Your task to perform on an android device: choose inbox layout in the gmail app Image 0: 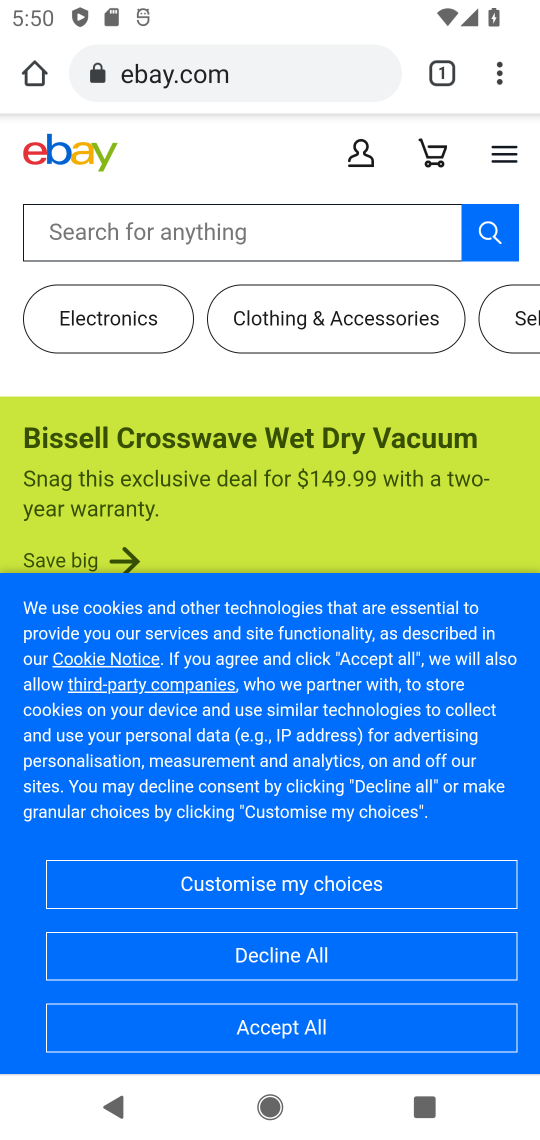
Step 0: press home button
Your task to perform on an android device: choose inbox layout in the gmail app Image 1: 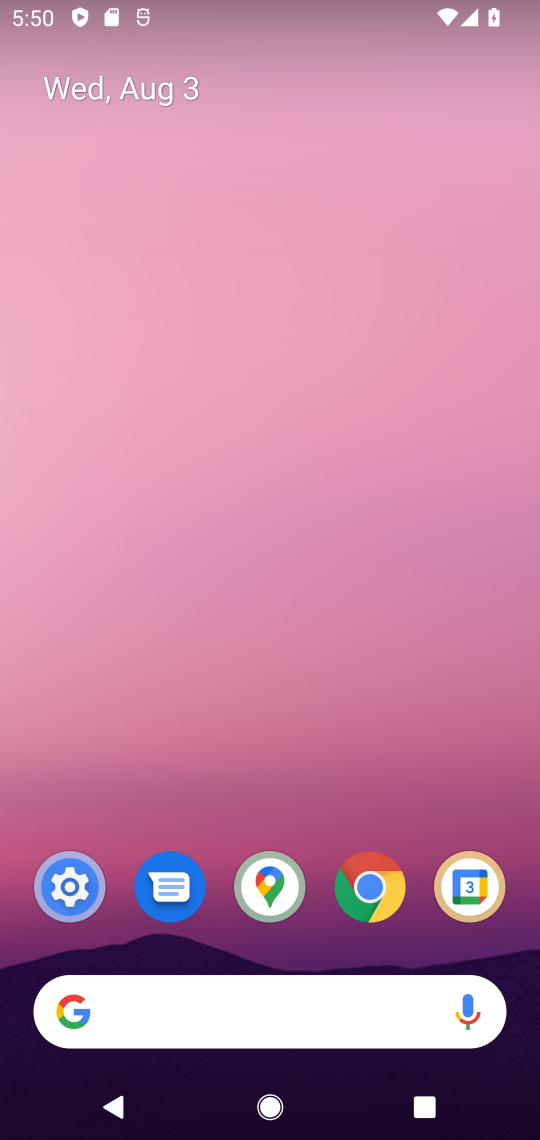
Step 1: drag from (264, 959) to (379, 71)
Your task to perform on an android device: choose inbox layout in the gmail app Image 2: 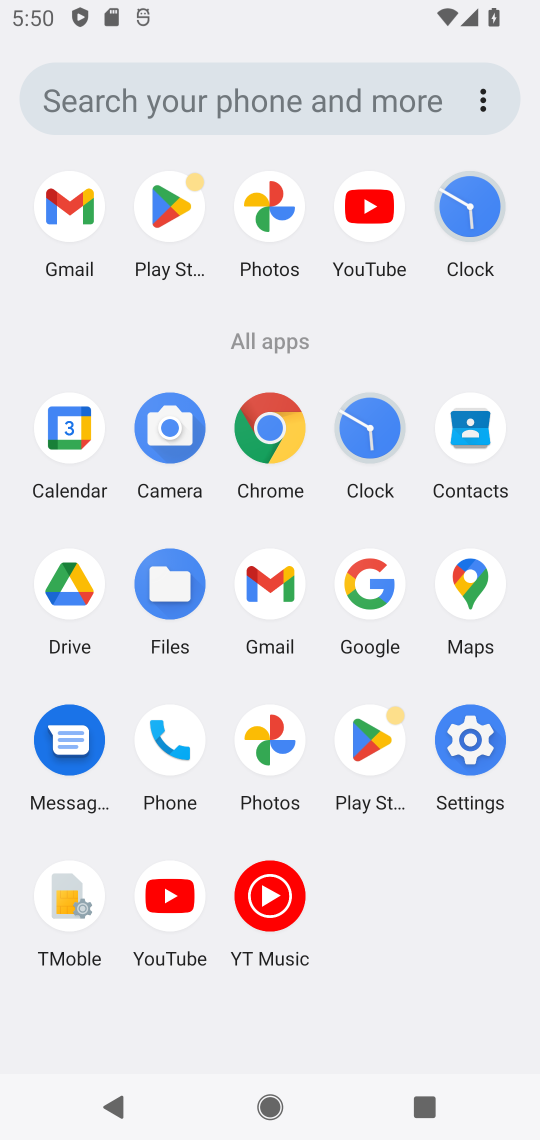
Step 2: click (253, 560)
Your task to perform on an android device: choose inbox layout in the gmail app Image 3: 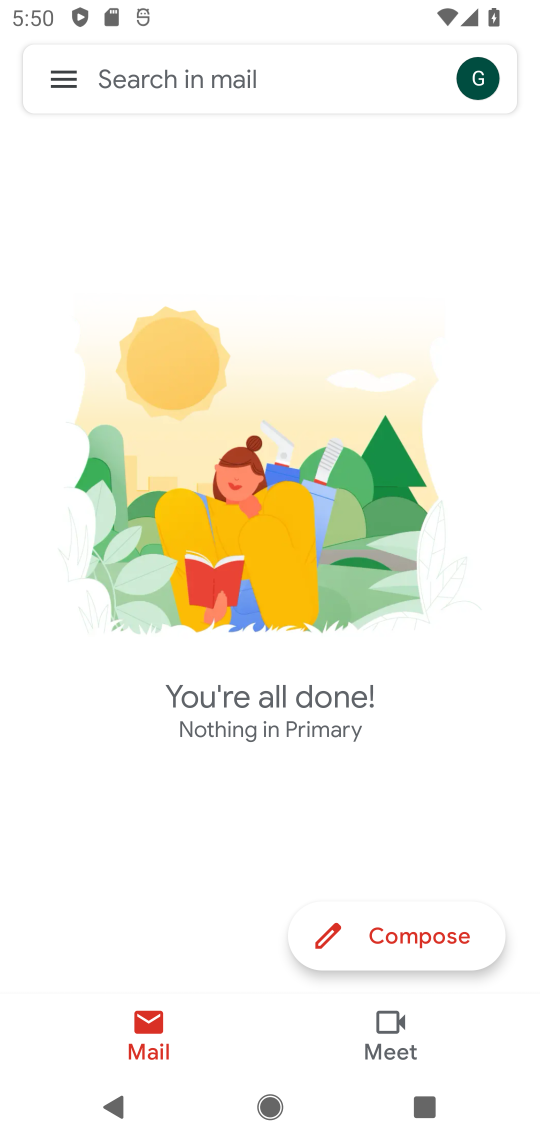
Step 3: click (42, 56)
Your task to perform on an android device: choose inbox layout in the gmail app Image 4: 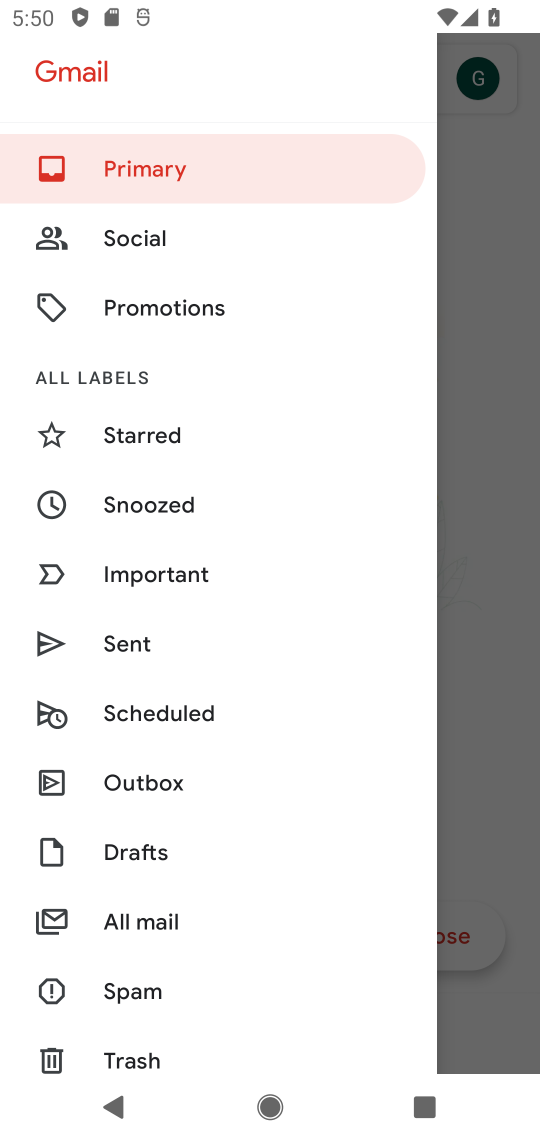
Step 4: drag from (144, 922) to (137, 111)
Your task to perform on an android device: choose inbox layout in the gmail app Image 5: 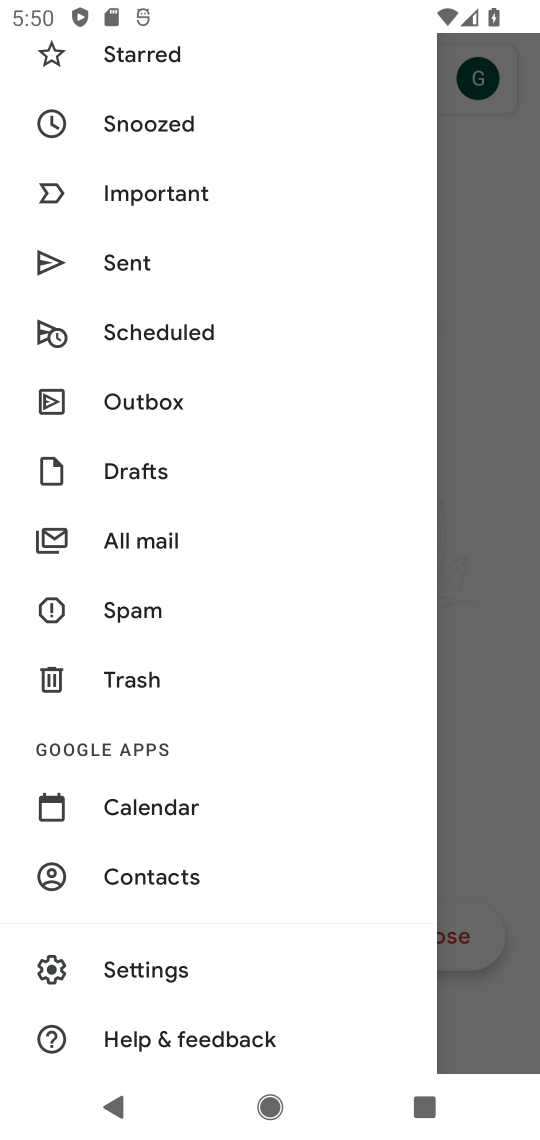
Step 5: click (126, 954)
Your task to perform on an android device: choose inbox layout in the gmail app Image 6: 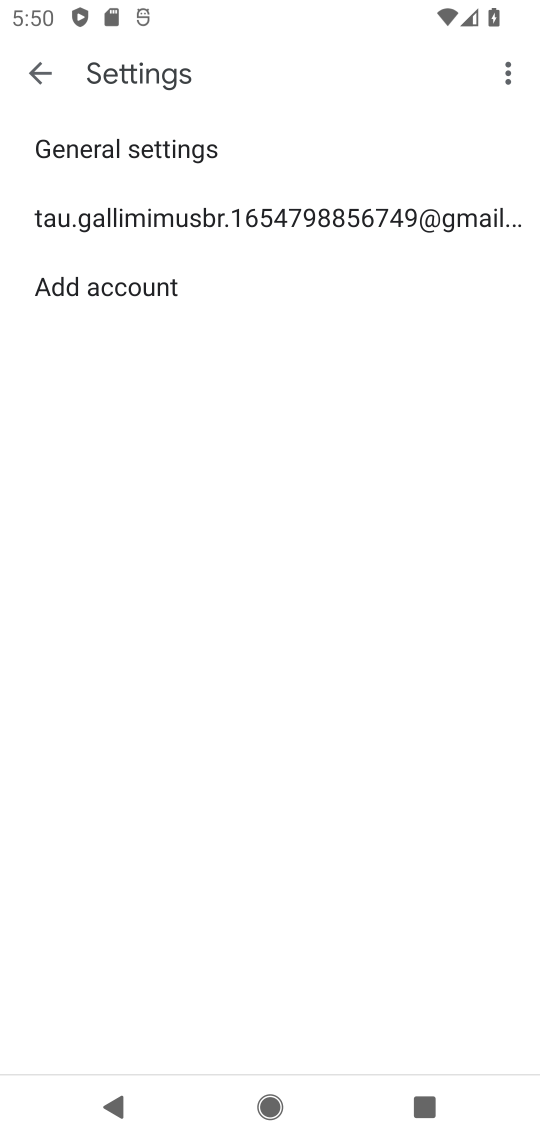
Step 6: click (188, 235)
Your task to perform on an android device: choose inbox layout in the gmail app Image 7: 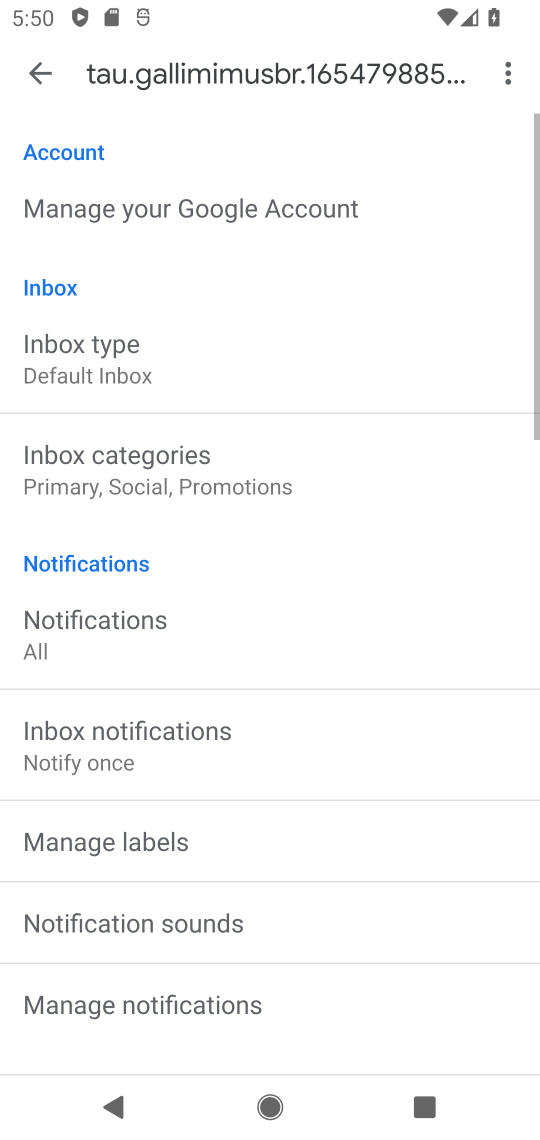
Step 7: click (167, 355)
Your task to perform on an android device: choose inbox layout in the gmail app Image 8: 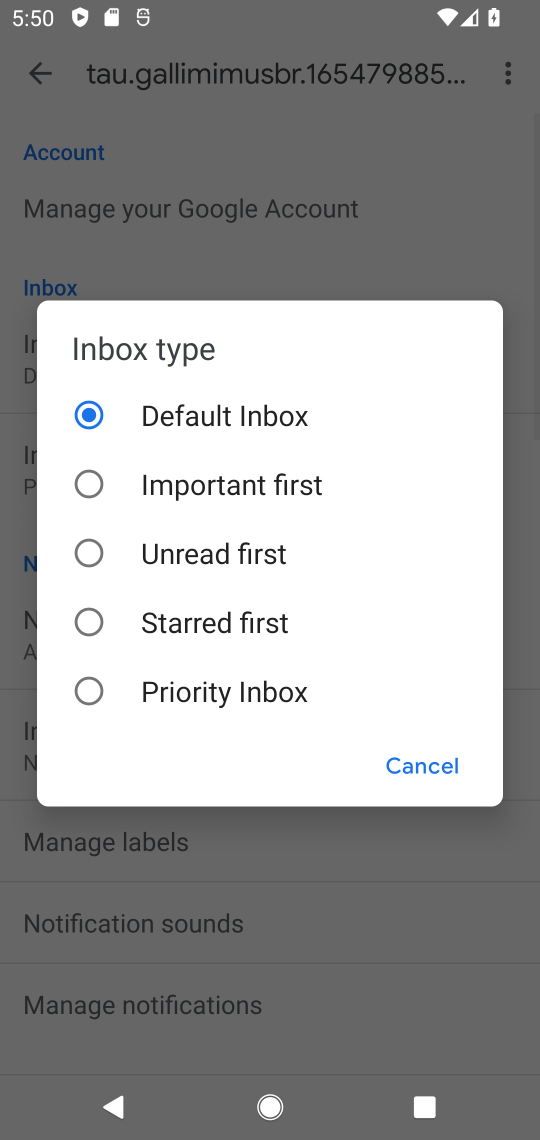
Step 8: click (168, 686)
Your task to perform on an android device: choose inbox layout in the gmail app Image 9: 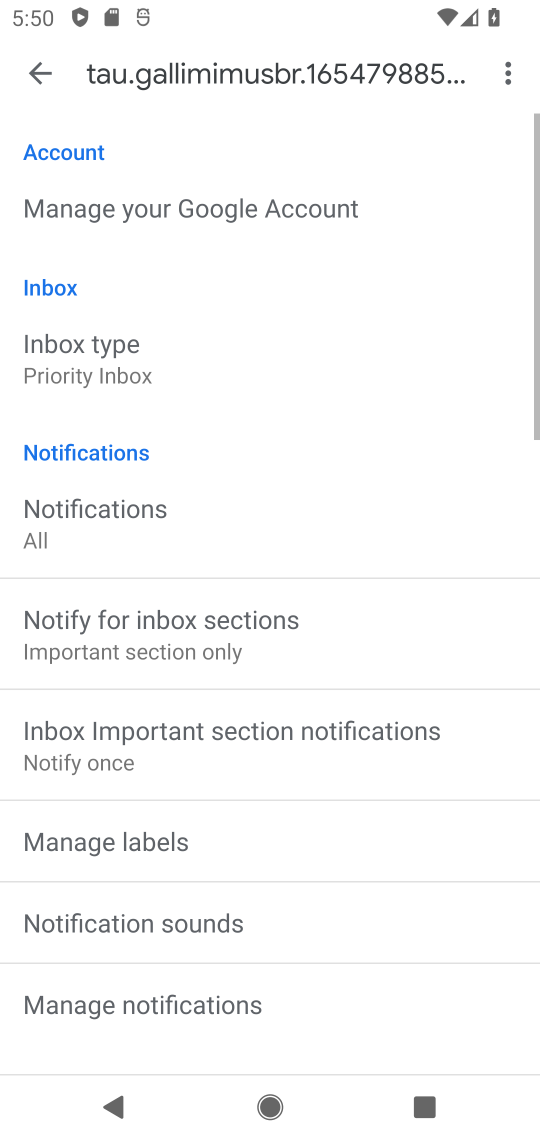
Step 9: click (38, 66)
Your task to perform on an android device: choose inbox layout in the gmail app Image 10: 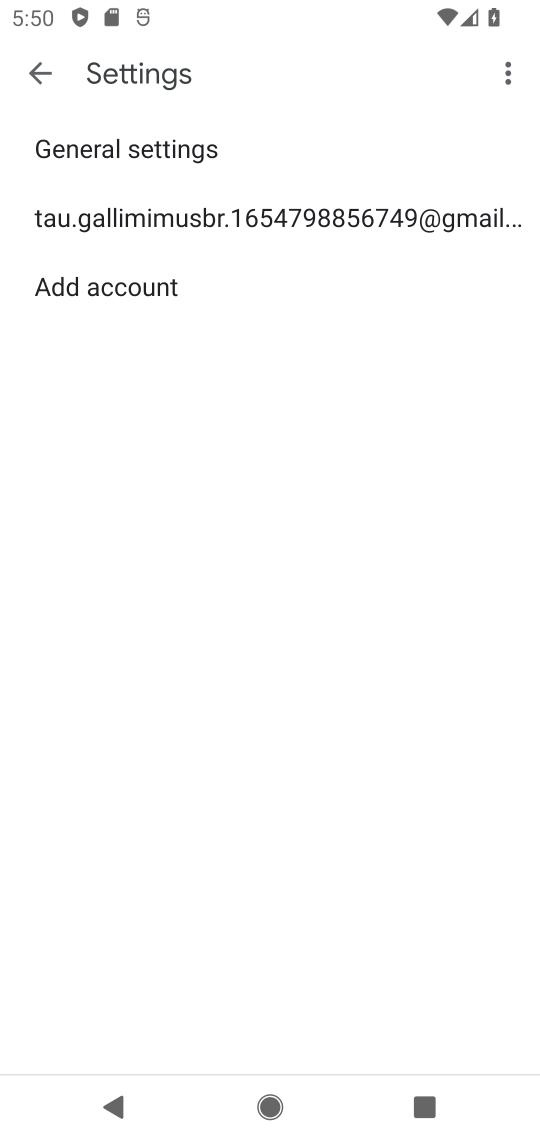
Step 10: click (38, 66)
Your task to perform on an android device: choose inbox layout in the gmail app Image 11: 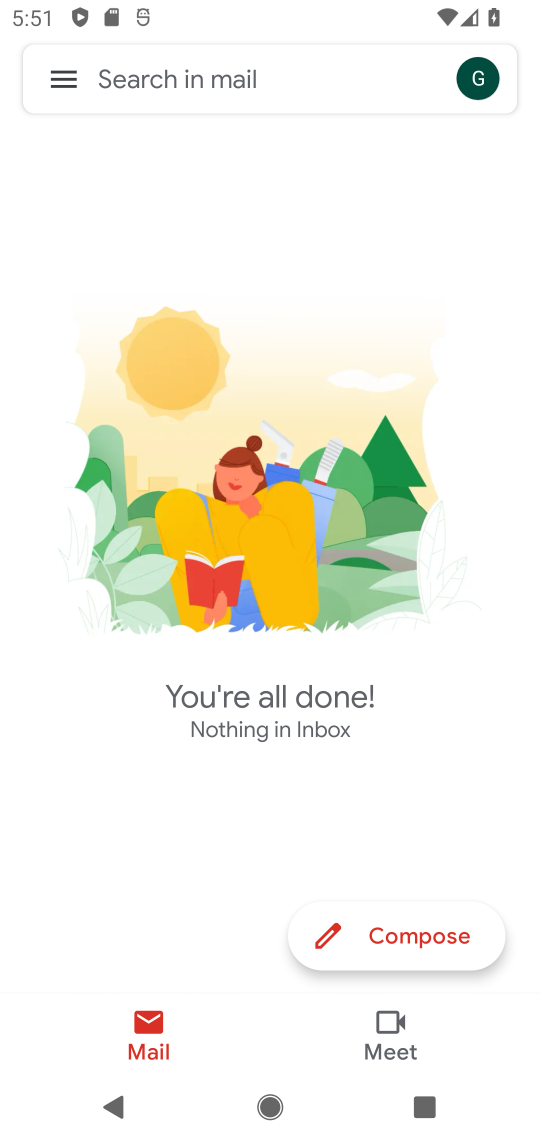
Step 11: task complete